Your task to perform on an android device: Open the map Image 0: 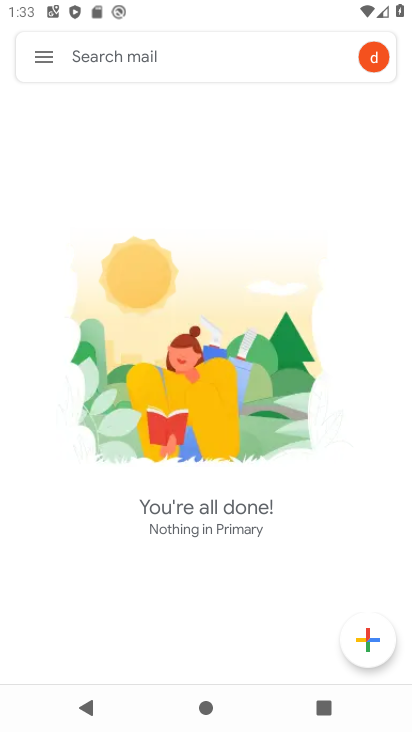
Step 0: press home button
Your task to perform on an android device: Open the map Image 1: 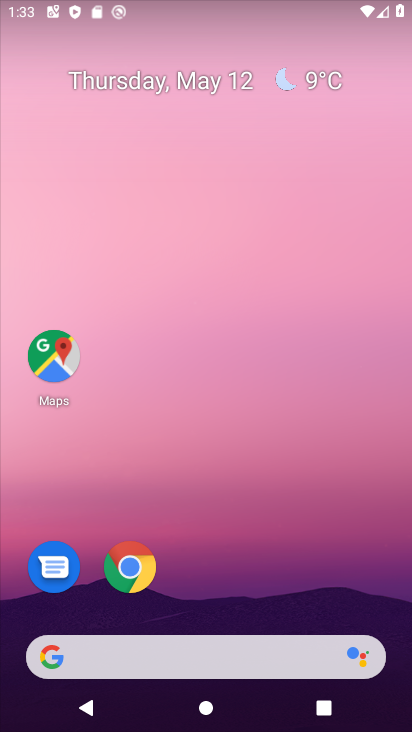
Step 1: drag from (226, 597) to (236, 129)
Your task to perform on an android device: Open the map Image 2: 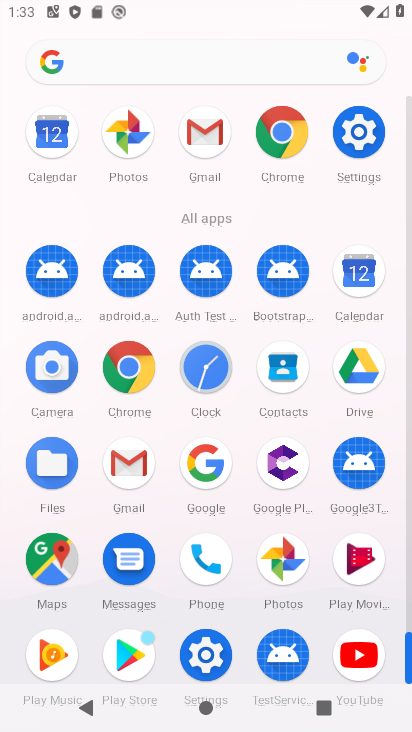
Step 2: click (42, 562)
Your task to perform on an android device: Open the map Image 3: 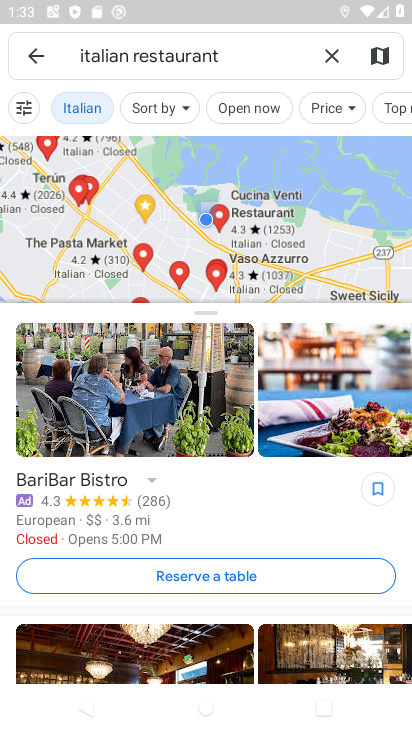
Step 3: task complete